Your task to perform on an android device: turn on data saver in the chrome app Image 0: 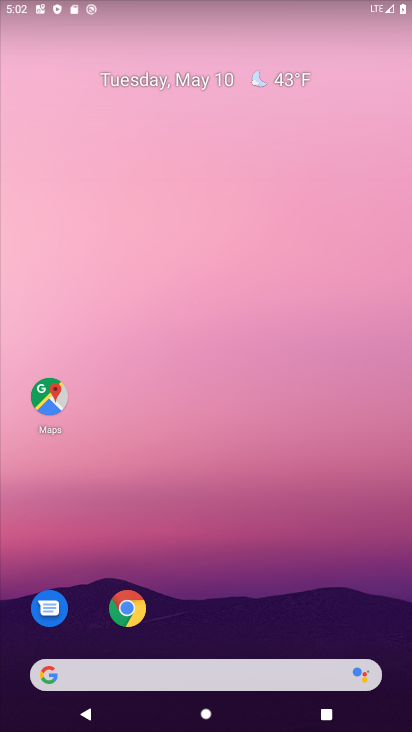
Step 0: click (123, 603)
Your task to perform on an android device: turn on data saver in the chrome app Image 1: 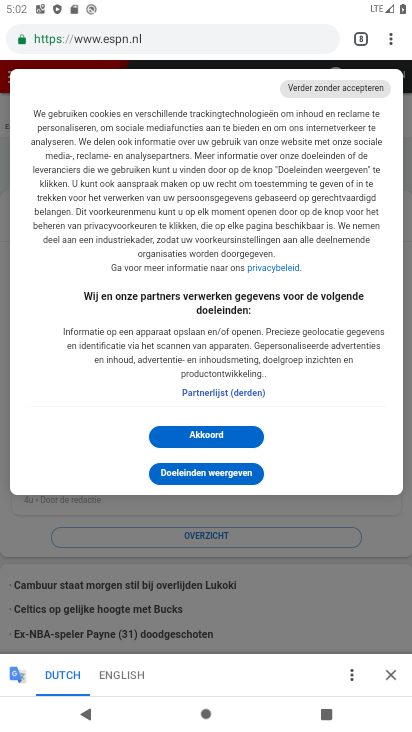
Step 1: drag from (389, 42) to (263, 464)
Your task to perform on an android device: turn on data saver in the chrome app Image 2: 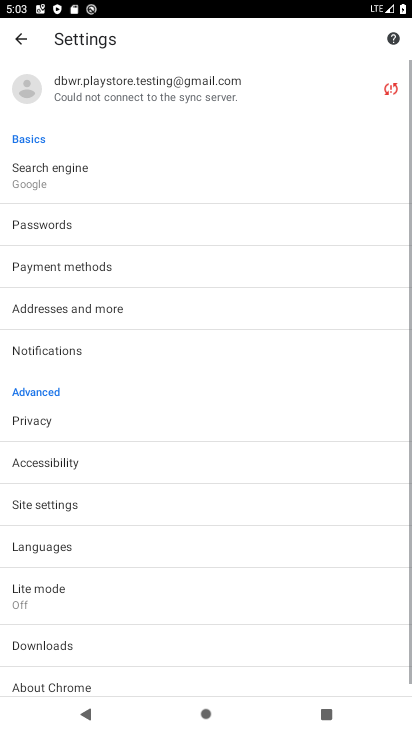
Step 2: drag from (180, 607) to (196, 309)
Your task to perform on an android device: turn on data saver in the chrome app Image 3: 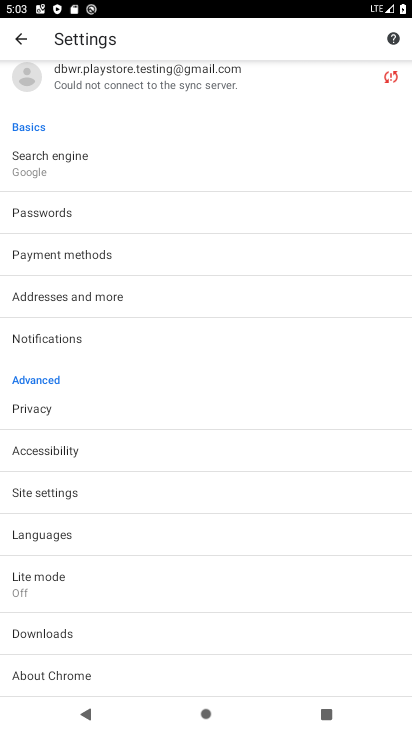
Step 3: click (62, 576)
Your task to perform on an android device: turn on data saver in the chrome app Image 4: 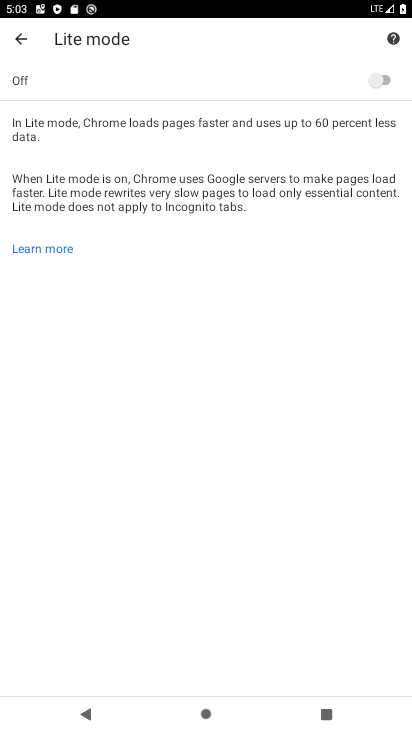
Step 4: click (381, 81)
Your task to perform on an android device: turn on data saver in the chrome app Image 5: 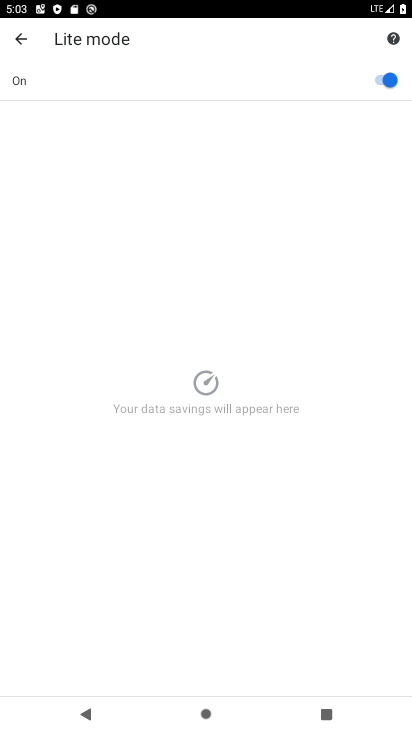
Step 5: task complete